Your task to perform on an android device: turn off priority inbox in the gmail app Image 0: 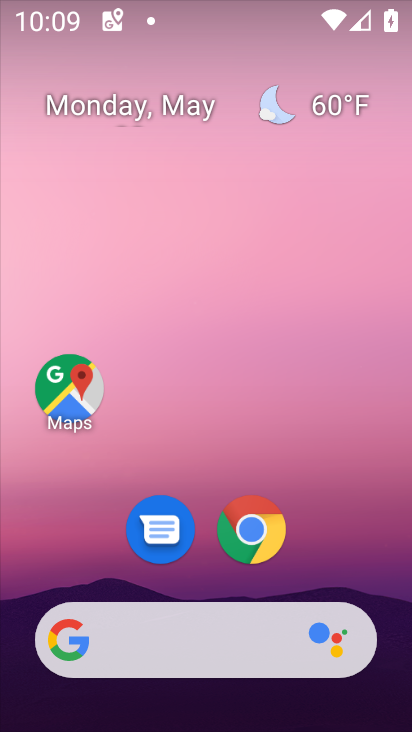
Step 0: drag from (277, 541) to (235, 167)
Your task to perform on an android device: turn off priority inbox in the gmail app Image 1: 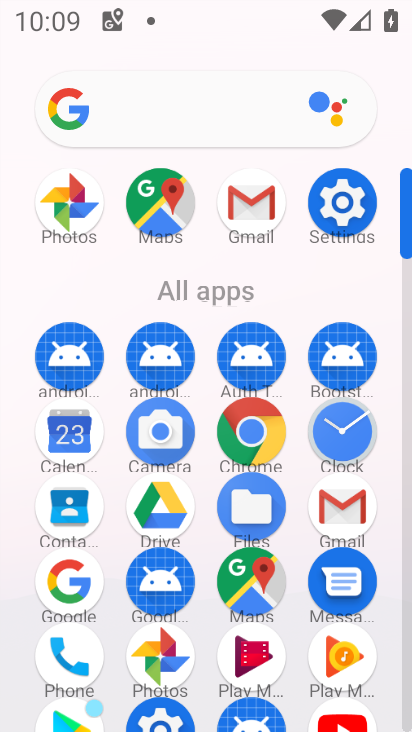
Step 1: click (257, 213)
Your task to perform on an android device: turn off priority inbox in the gmail app Image 2: 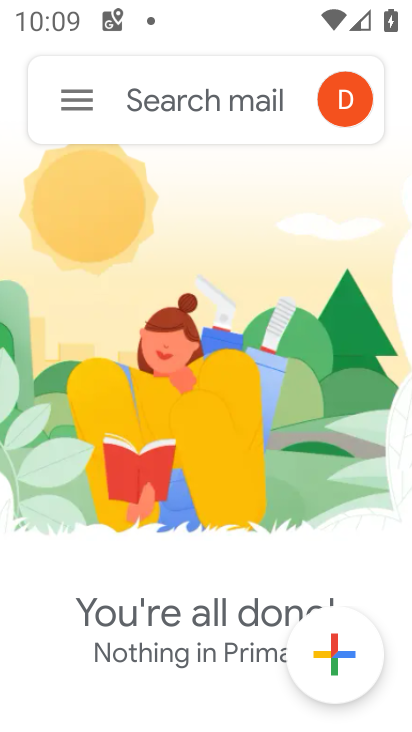
Step 2: click (73, 110)
Your task to perform on an android device: turn off priority inbox in the gmail app Image 3: 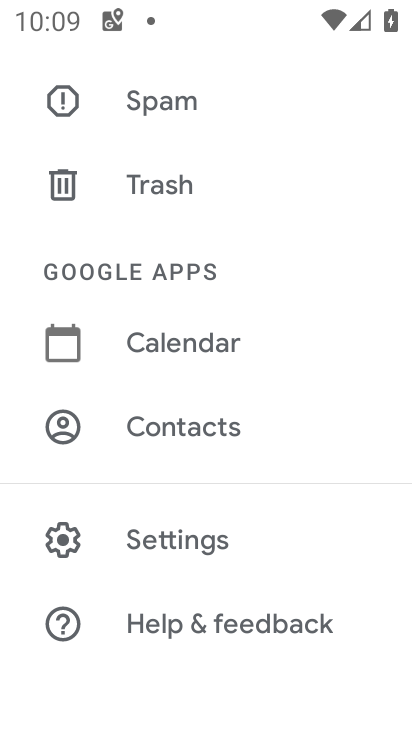
Step 3: click (201, 543)
Your task to perform on an android device: turn off priority inbox in the gmail app Image 4: 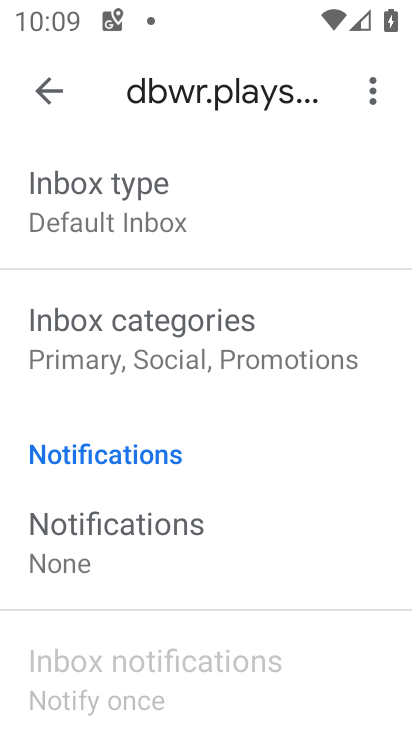
Step 4: click (66, 201)
Your task to perform on an android device: turn off priority inbox in the gmail app Image 5: 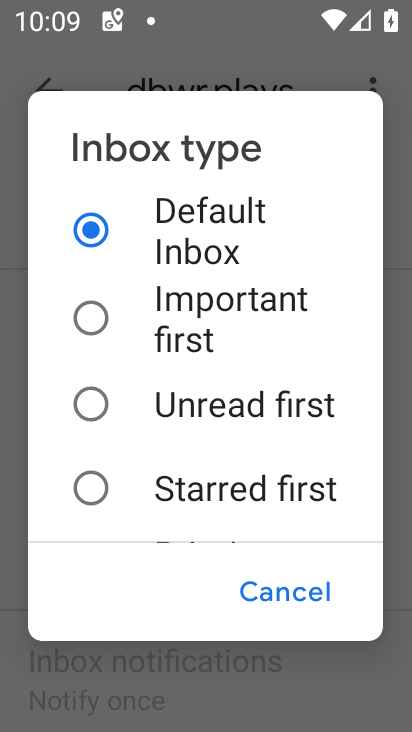
Step 5: drag from (136, 481) to (139, 217)
Your task to perform on an android device: turn off priority inbox in the gmail app Image 6: 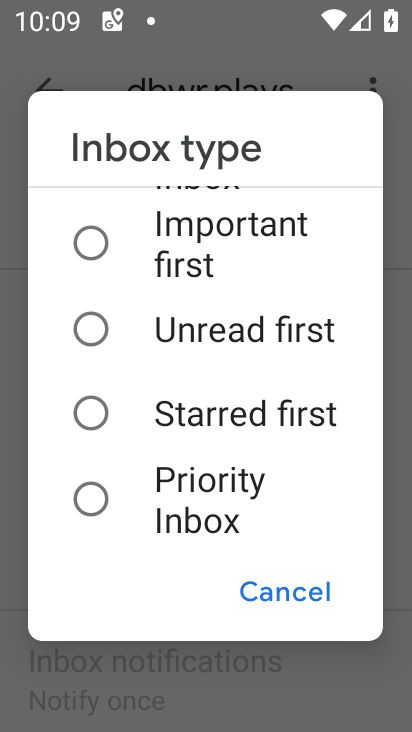
Step 6: click (93, 507)
Your task to perform on an android device: turn off priority inbox in the gmail app Image 7: 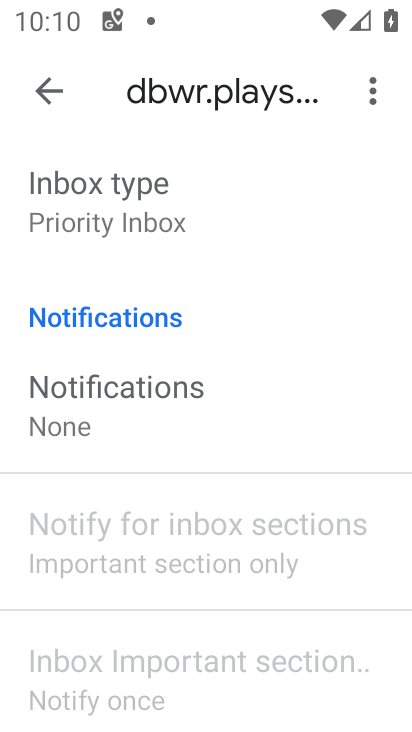
Step 7: task complete